Your task to perform on an android device: When is my next appointment? Image 0: 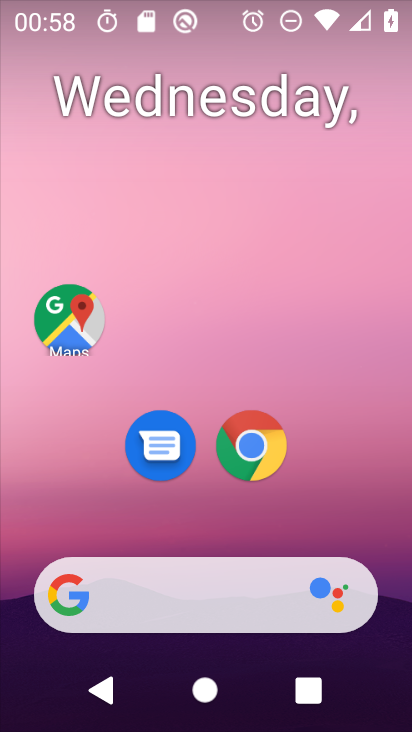
Step 0: drag from (264, 491) to (220, 3)
Your task to perform on an android device: When is my next appointment? Image 1: 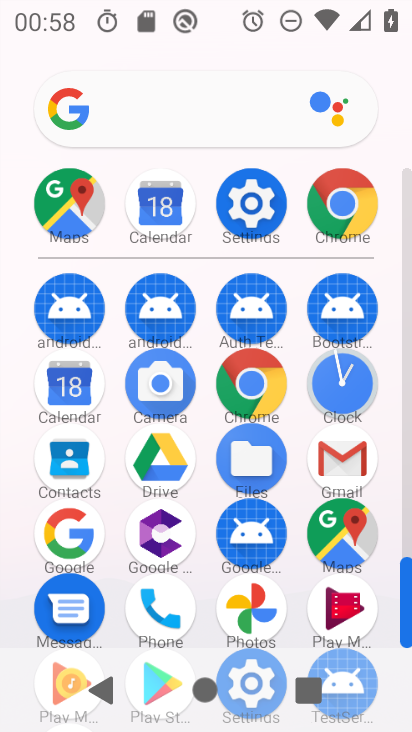
Step 1: click (167, 221)
Your task to perform on an android device: When is my next appointment? Image 2: 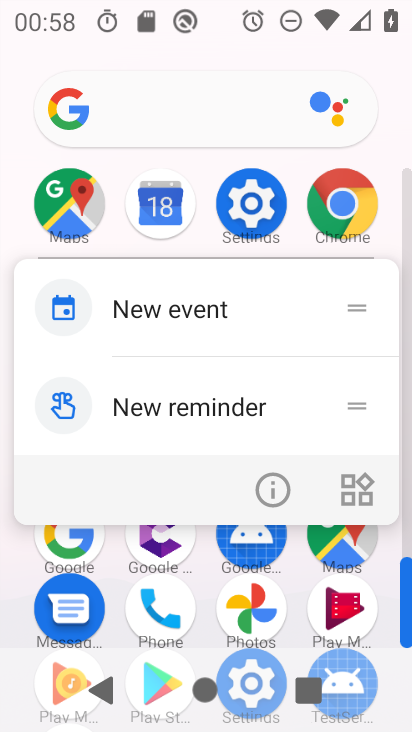
Step 2: click (180, 200)
Your task to perform on an android device: When is my next appointment? Image 3: 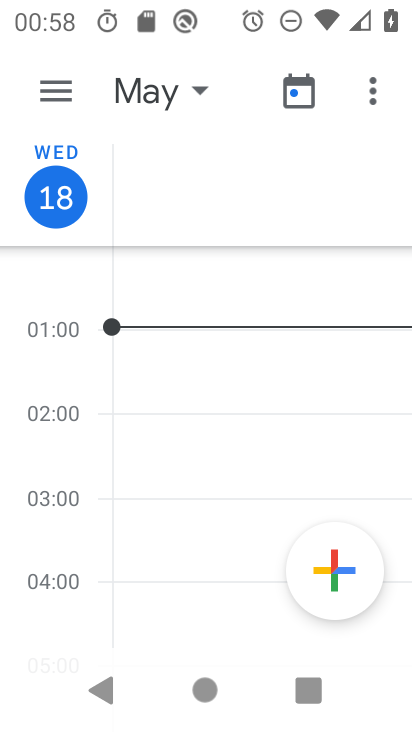
Step 3: click (165, 100)
Your task to perform on an android device: When is my next appointment? Image 4: 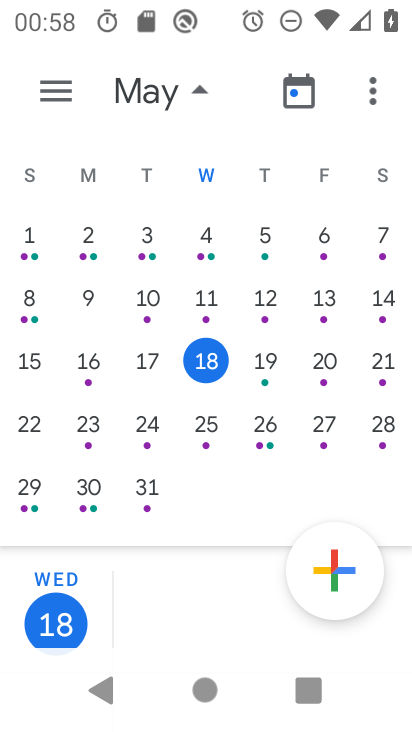
Step 4: click (204, 366)
Your task to perform on an android device: When is my next appointment? Image 5: 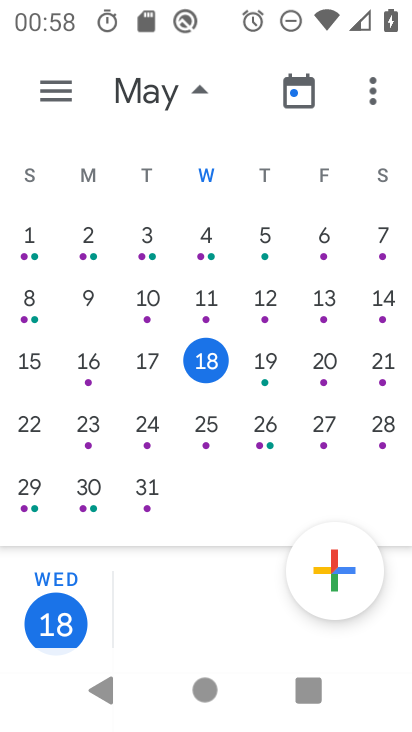
Step 5: drag from (207, 578) to (229, 107)
Your task to perform on an android device: When is my next appointment? Image 6: 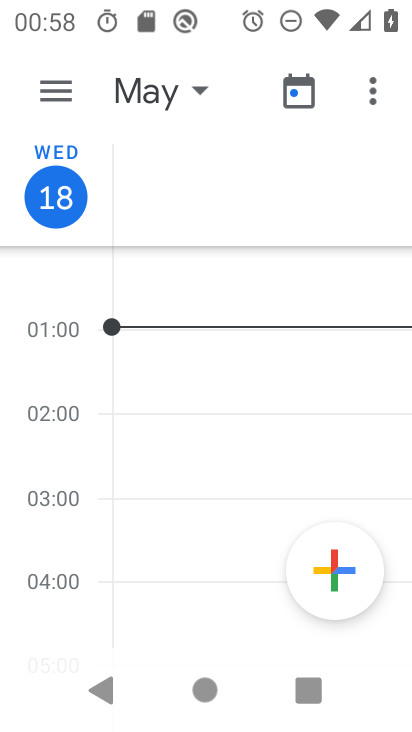
Step 6: drag from (198, 465) to (201, 180)
Your task to perform on an android device: When is my next appointment? Image 7: 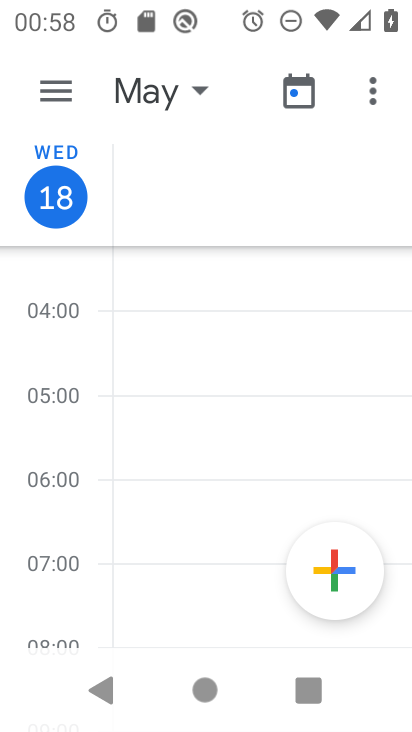
Step 7: click (78, 86)
Your task to perform on an android device: When is my next appointment? Image 8: 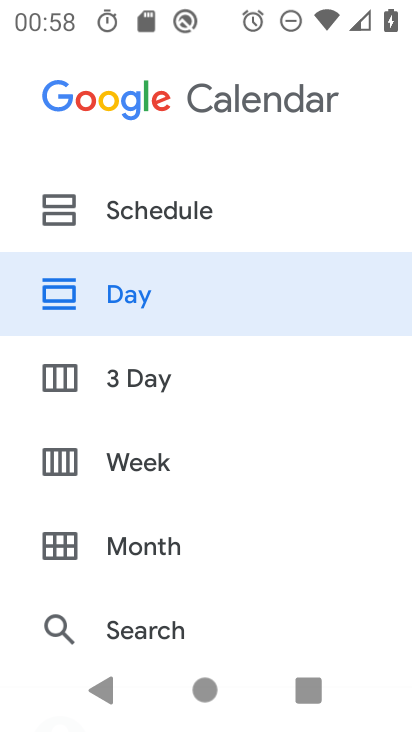
Step 8: click (173, 193)
Your task to perform on an android device: When is my next appointment? Image 9: 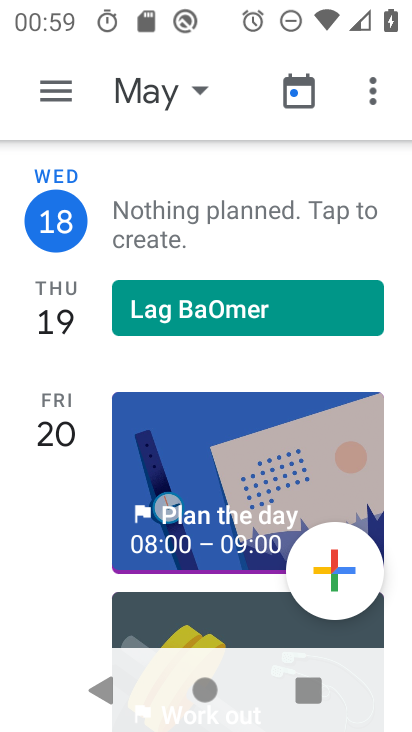
Step 9: task complete